Your task to perform on an android device: turn off location history Image 0: 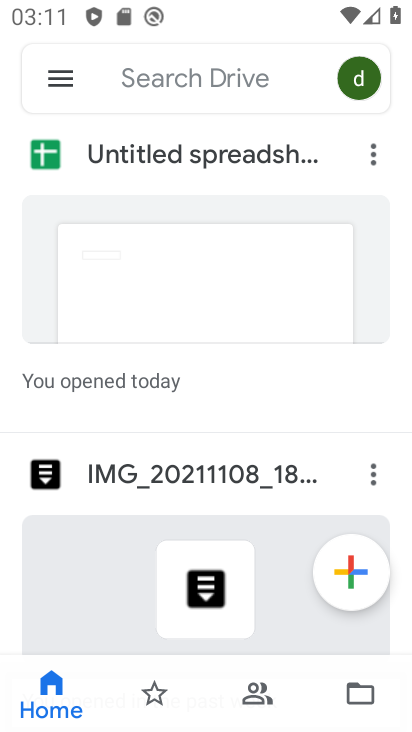
Step 0: press home button
Your task to perform on an android device: turn off location history Image 1: 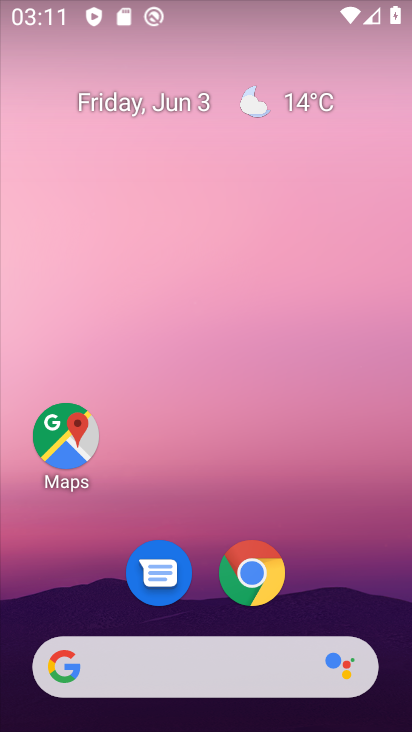
Step 1: drag from (270, 645) to (283, 184)
Your task to perform on an android device: turn off location history Image 2: 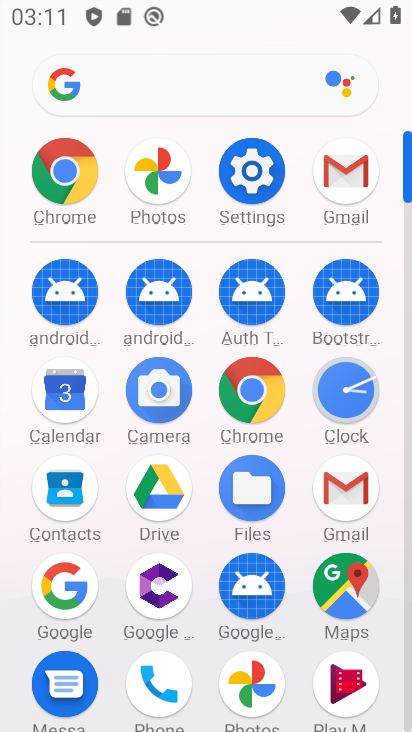
Step 2: click (246, 169)
Your task to perform on an android device: turn off location history Image 3: 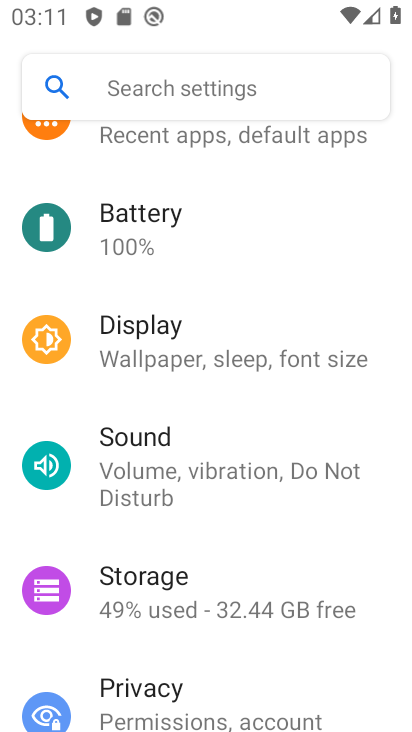
Step 3: drag from (241, 243) to (251, 728)
Your task to perform on an android device: turn off location history Image 4: 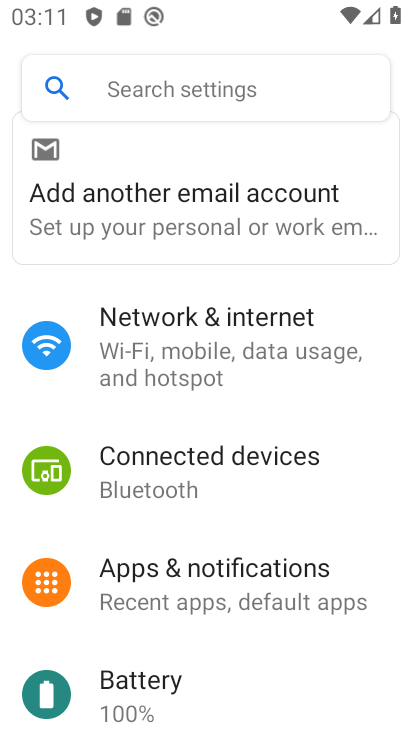
Step 4: drag from (252, 678) to (238, 72)
Your task to perform on an android device: turn off location history Image 5: 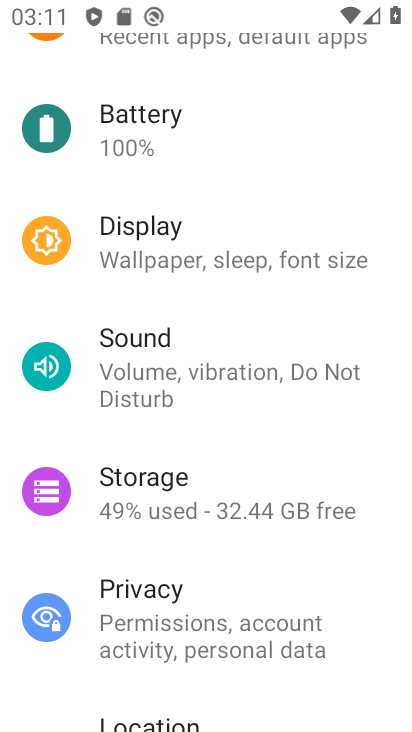
Step 5: drag from (235, 646) to (284, 366)
Your task to perform on an android device: turn off location history Image 6: 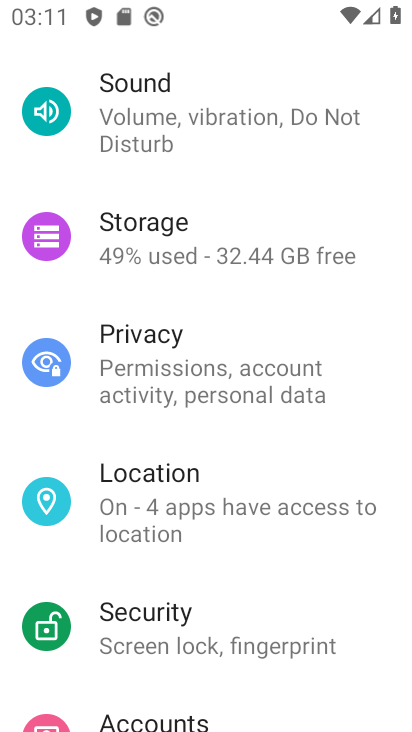
Step 6: click (159, 533)
Your task to perform on an android device: turn off location history Image 7: 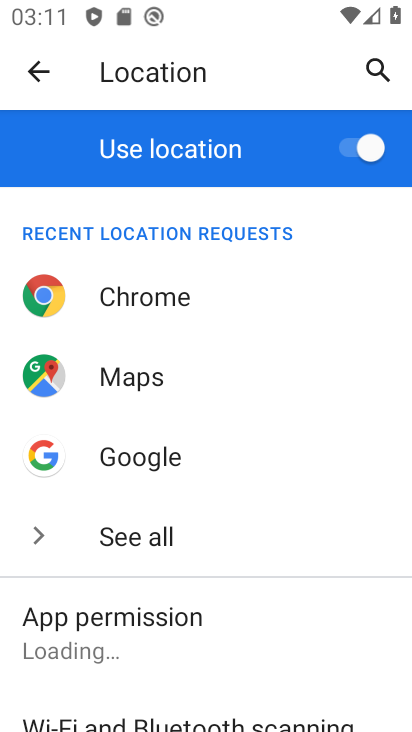
Step 7: drag from (286, 640) to (282, 230)
Your task to perform on an android device: turn off location history Image 8: 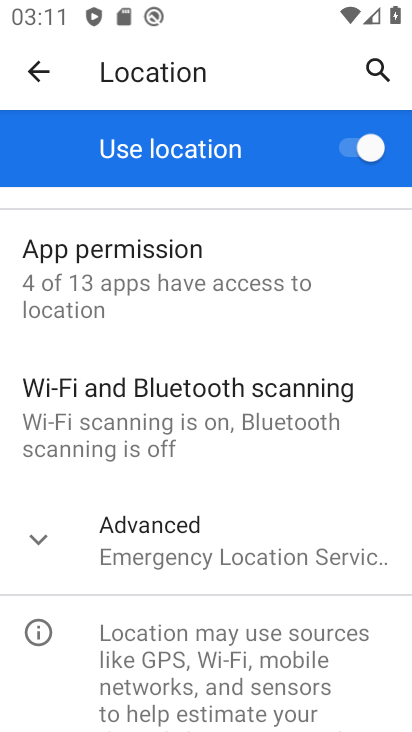
Step 8: drag from (259, 590) to (304, 259)
Your task to perform on an android device: turn off location history Image 9: 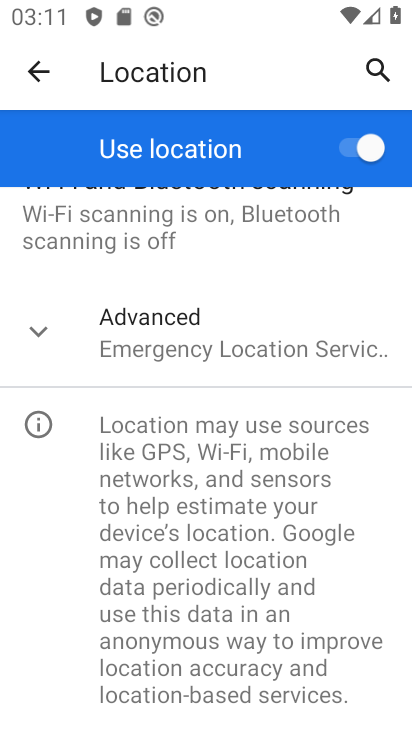
Step 9: drag from (288, 329) to (276, 727)
Your task to perform on an android device: turn off location history Image 10: 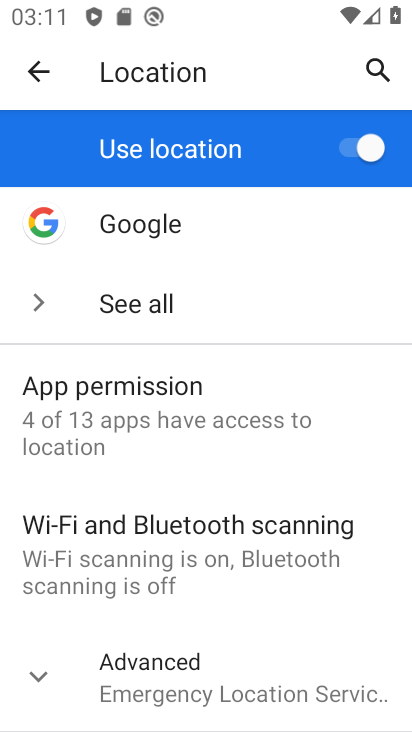
Step 10: drag from (281, 490) to (290, 355)
Your task to perform on an android device: turn off location history Image 11: 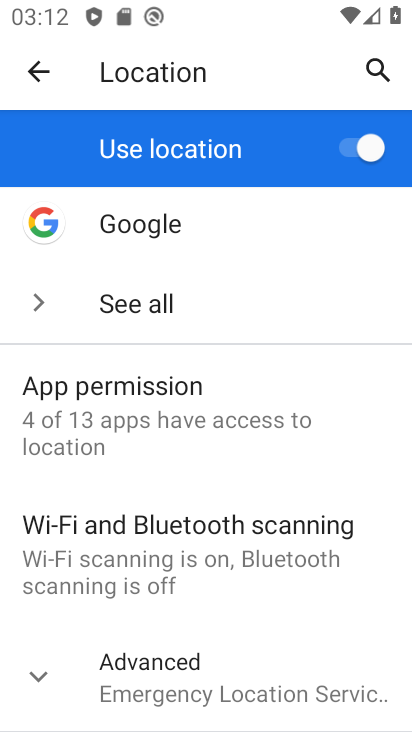
Step 11: drag from (196, 673) to (196, 325)
Your task to perform on an android device: turn off location history Image 12: 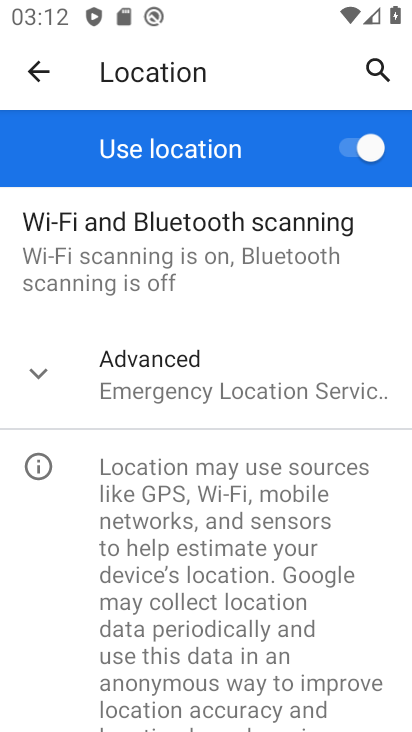
Step 12: click (185, 389)
Your task to perform on an android device: turn off location history Image 13: 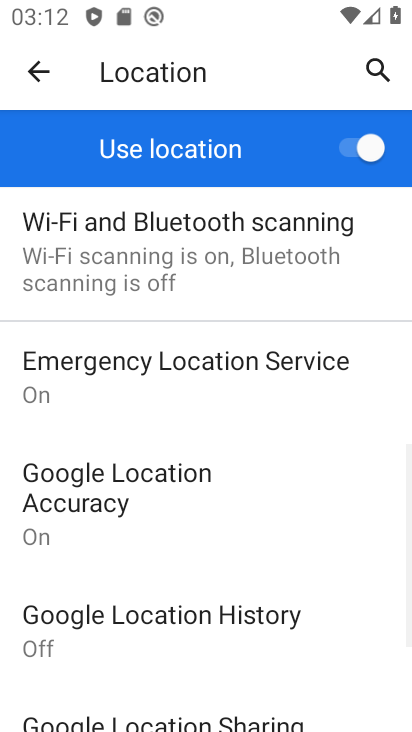
Step 13: drag from (215, 610) to (249, 333)
Your task to perform on an android device: turn off location history Image 14: 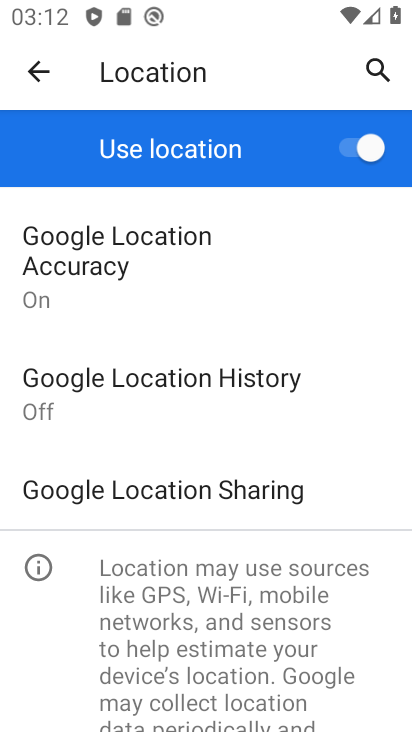
Step 14: click (232, 373)
Your task to perform on an android device: turn off location history Image 15: 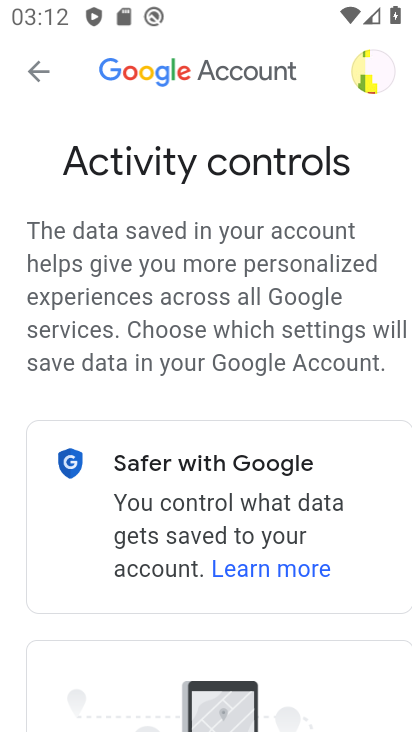
Step 15: task complete